Your task to perform on an android device: Open notification settings Image 0: 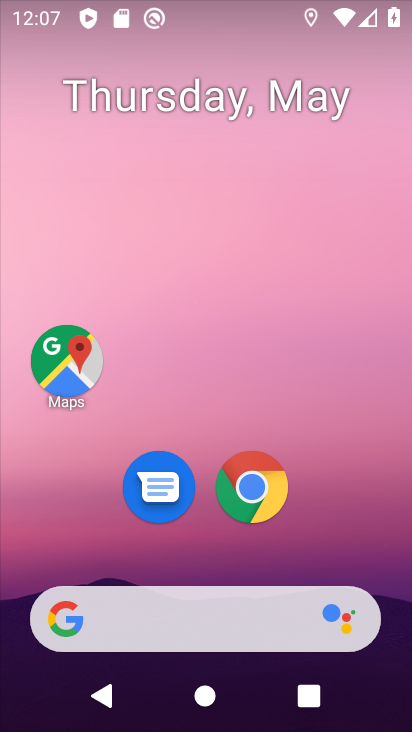
Step 0: drag from (204, 198) to (233, 11)
Your task to perform on an android device: Open notification settings Image 1: 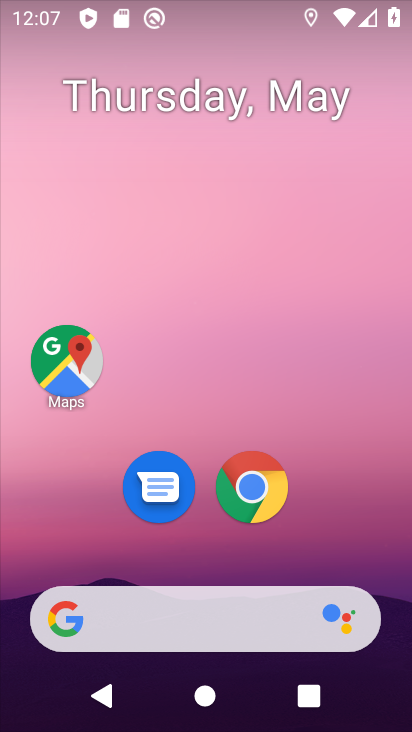
Step 1: drag from (203, 396) to (253, 14)
Your task to perform on an android device: Open notification settings Image 2: 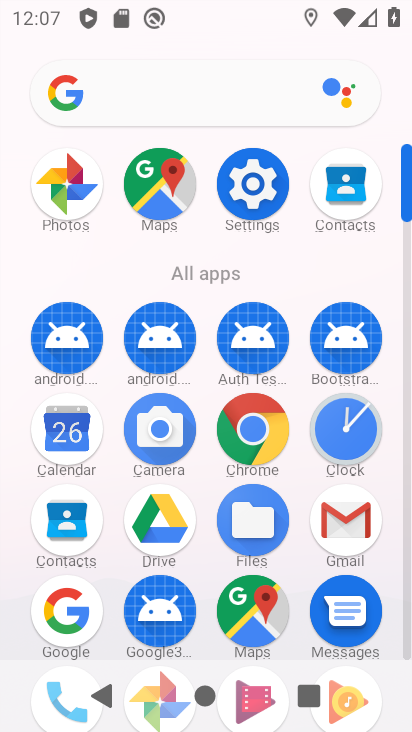
Step 2: click (245, 219)
Your task to perform on an android device: Open notification settings Image 3: 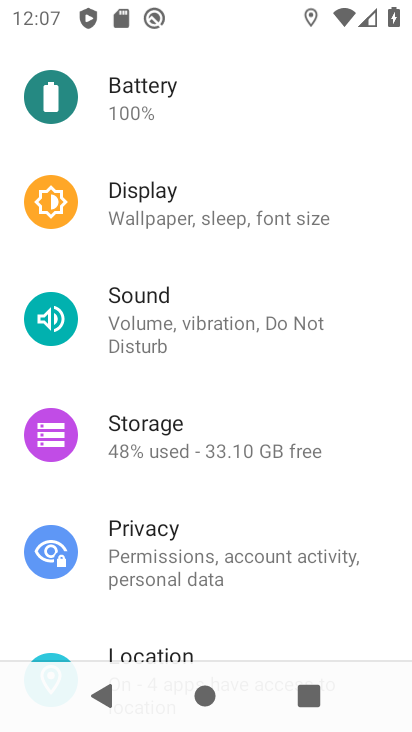
Step 3: drag from (221, 231) to (234, 525)
Your task to perform on an android device: Open notification settings Image 4: 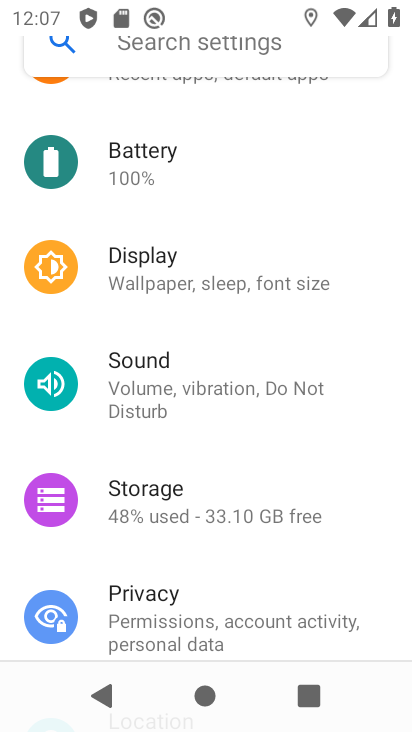
Step 4: click (208, 96)
Your task to perform on an android device: Open notification settings Image 5: 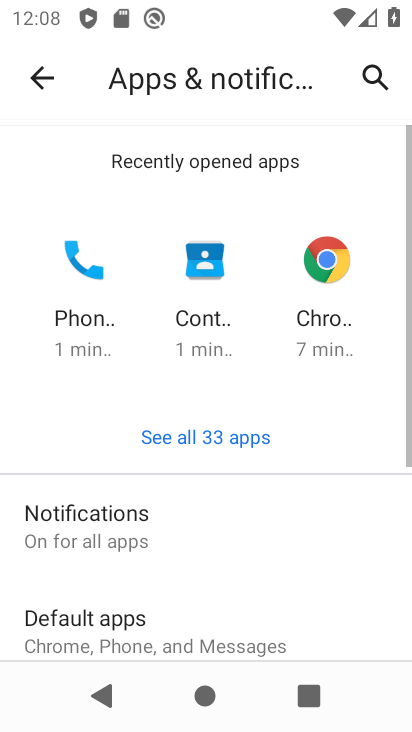
Step 5: click (74, 535)
Your task to perform on an android device: Open notification settings Image 6: 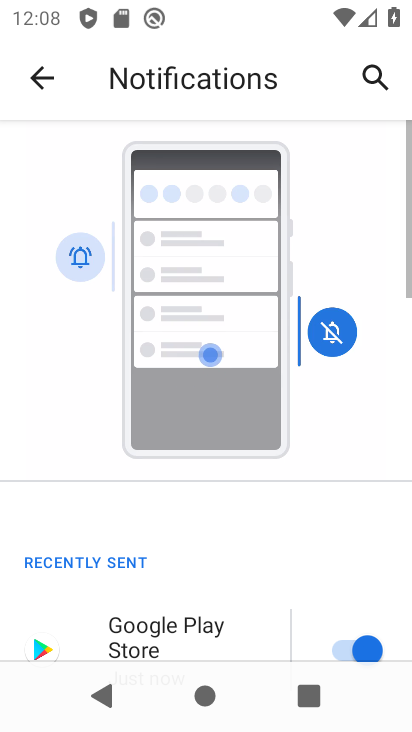
Step 6: task complete